Your task to perform on an android device: Show me popular videos on Youtube Image 0: 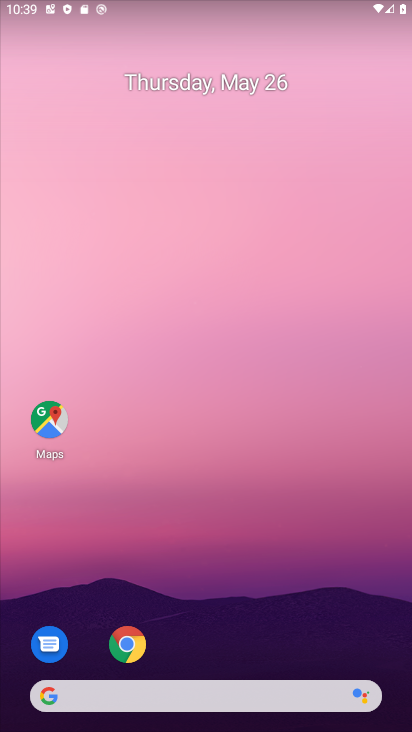
Step 0: drag from (361, 530) to (301, 32)
Your task to perform on an android device: Show me popular videos on Youtube Image 1: 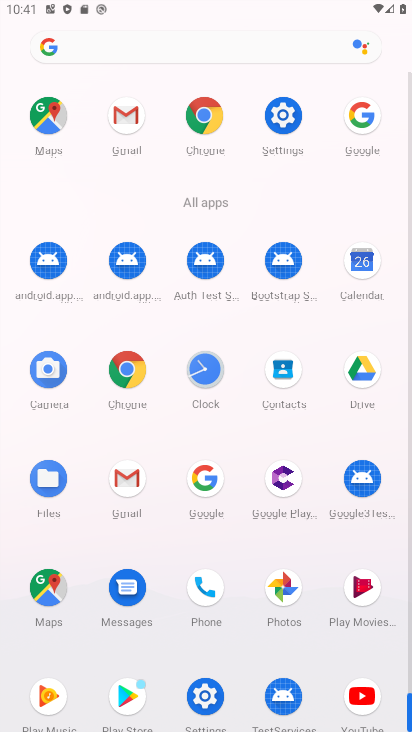
Step 1: click (346, 686)
Your task to perform on an android device: Show me popular videos on Youtube Image 2: 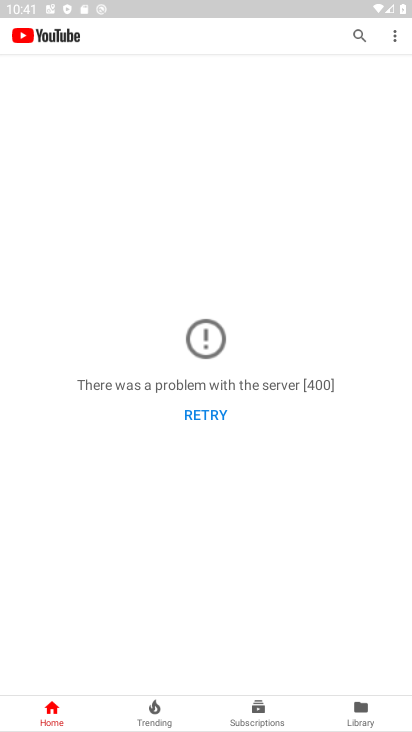
Step 2: task complete